Your task to perform on an android device: Open Yahoo.com Image 0: 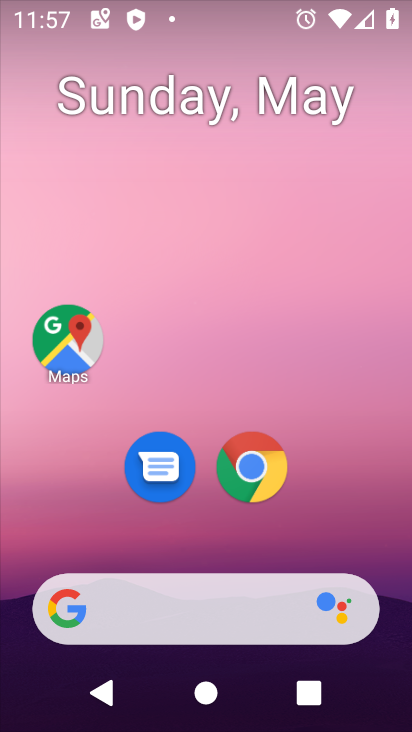
Step 0: click (267, 474)
Your task to perform on an android device: Open Yahoo.com Image 1: 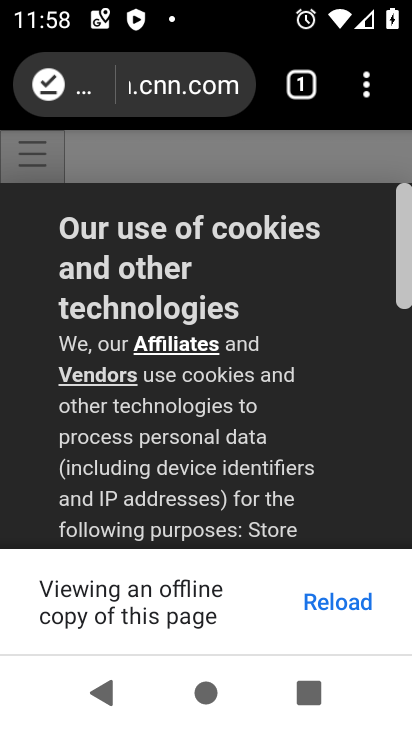
Step 1: click (146, 100)
Your task to perform on an android device: Open Yahoo.com Image 2: 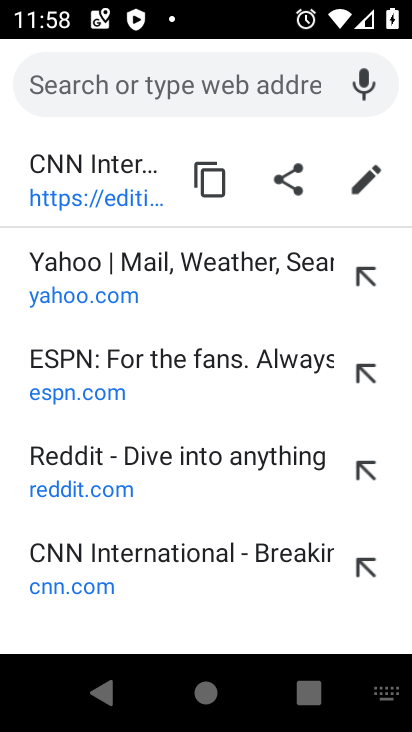
Step 2: click (66, 291)
Your task to perform on an android device: Open Yahoo.com Image 3: 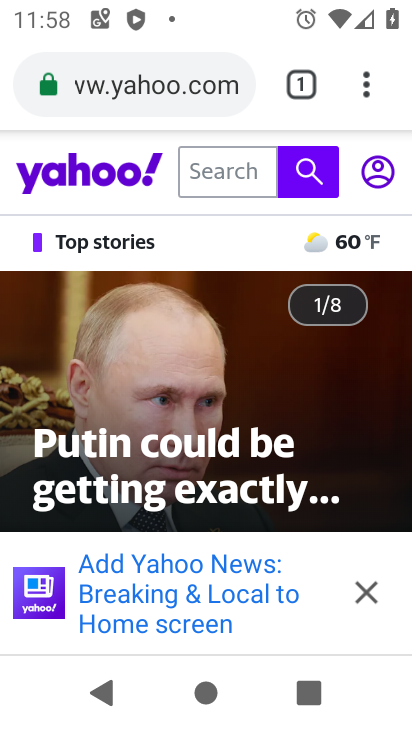
Step 3: task complete